Your task to perform on an android device: turn off javascript in the chrome app Image 0: 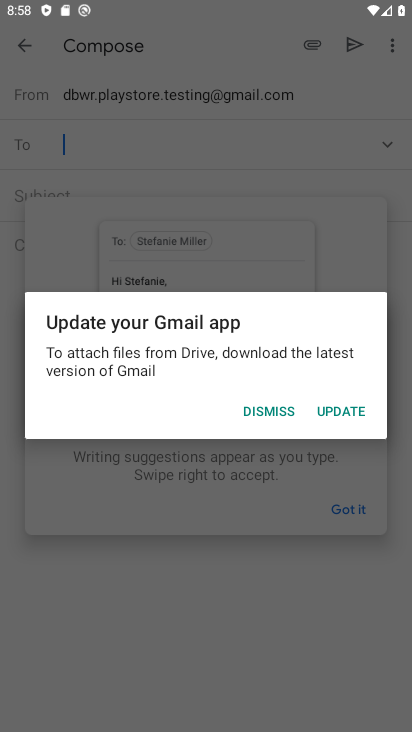
Step 0: press home button
Your task to perform on an android device: turn off javascript in the chrome app Image 1: 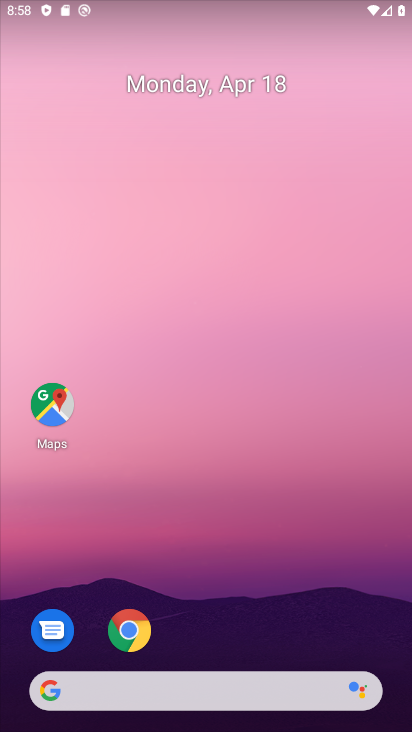
Step 1: click (142, 621)
Your task to perform on an android device: turn off javascript in the chrome app Image 2: 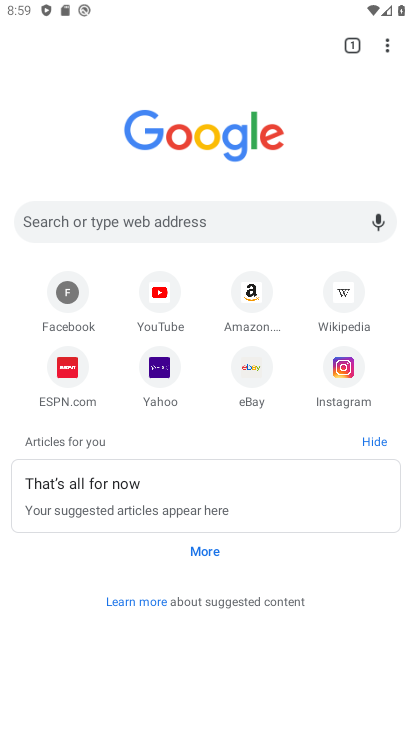
Step 2: click (388, 48)
Your task to perform on an android device: turn off javascript in the chrome app Image 3: 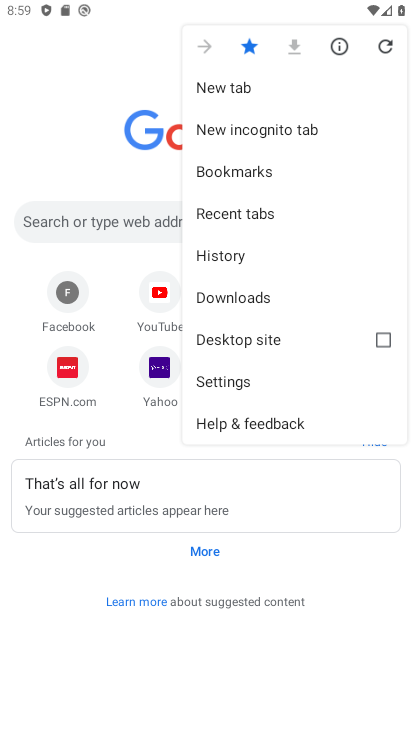
Step 3: click (278, 379)
Your task to perform on an android device: turn off javascript in the chrome app Image 4: 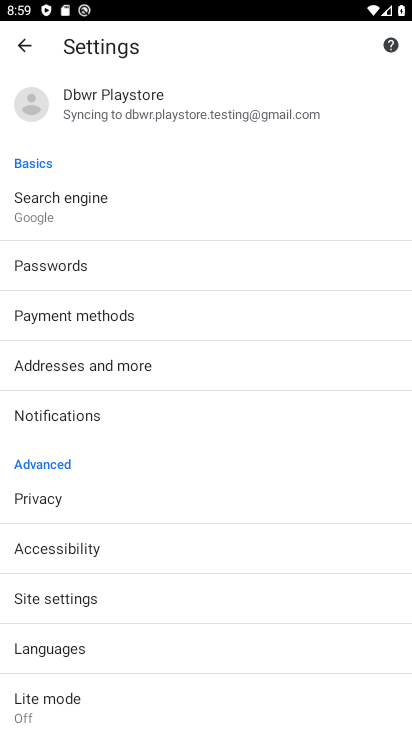
Step 4: click (187, 590)
Your task to perform on an android device: turn off javascript in the chrome app Image 5: 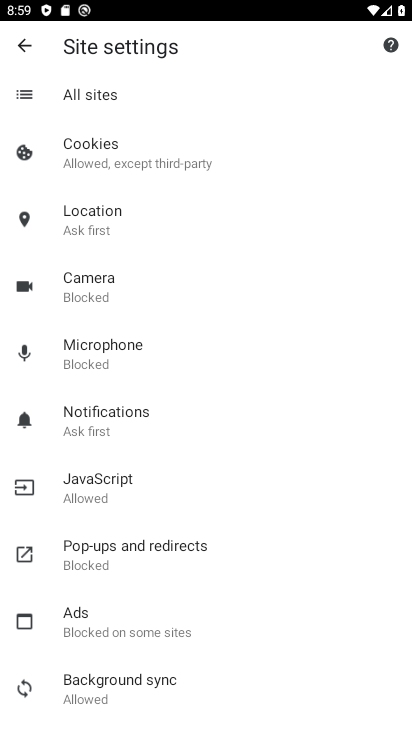
Step 5: click (199, 485)
Your task to perform on an android device: turn off javascript in the chrome app Image 6: 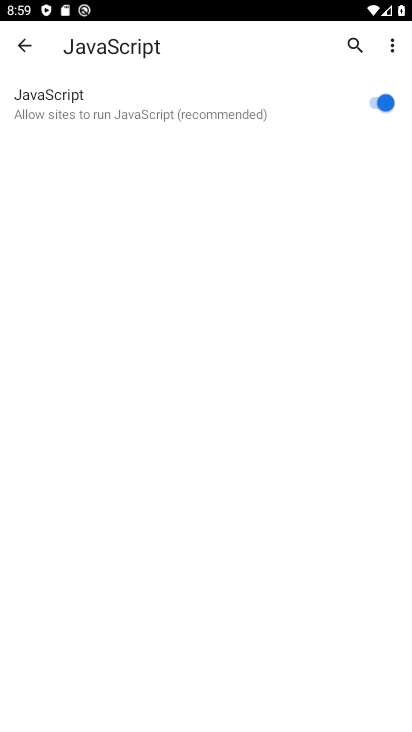
Step 6: click (380, 95)
Your task to perform on an android device: turn off javascript in the chrome app Image 7: 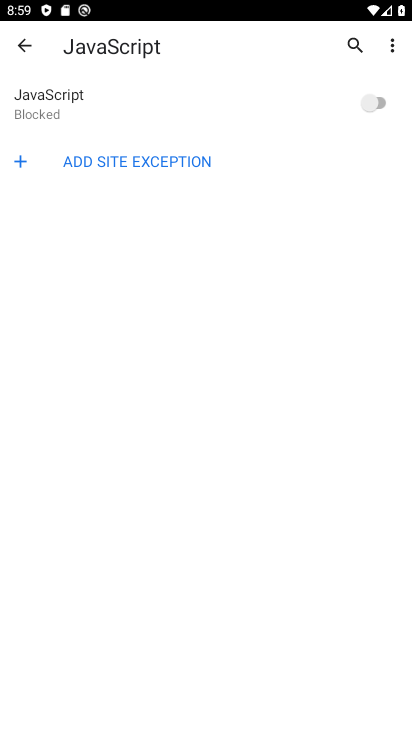
Step 7: task complete